Your task to perform on an android device: toggle sleep mode Image 0: 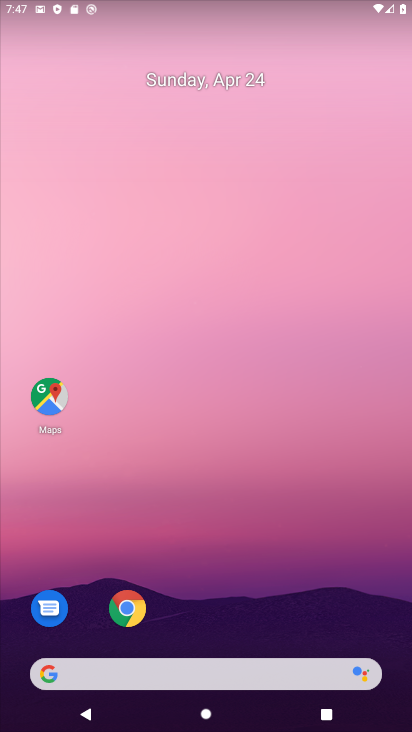
Step 0: drag from (210, 572) to (305, 175)
Your task to perform on an android device: toggle sleep mode Image 1: 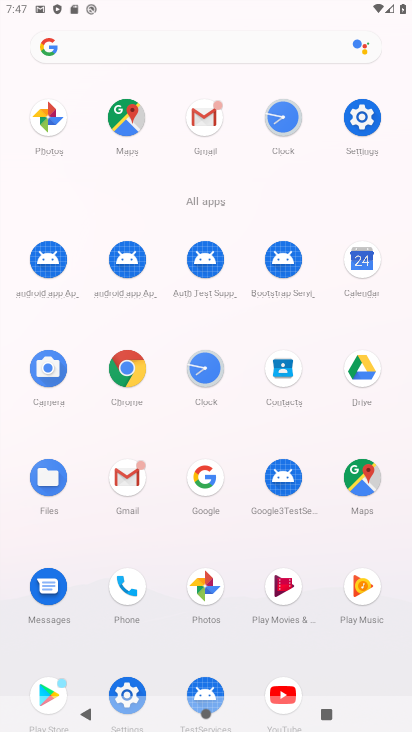
Step 1: click (373, 120)
Your task to perform on an android device: toggle sleep mode Image 2: 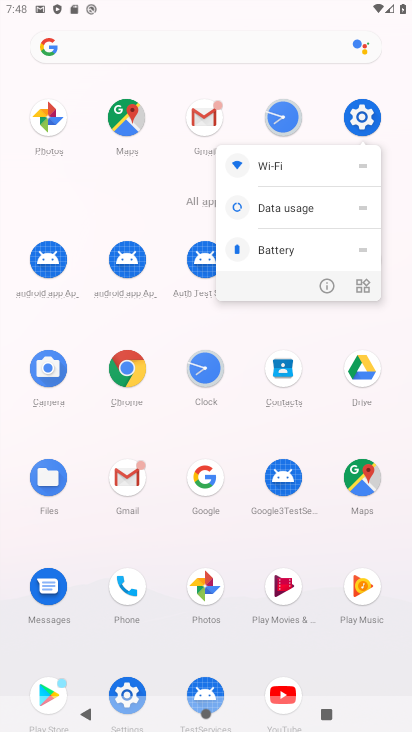
Step 2: click (361, 122)
Your task to perform on an android device: toggle sleep mode Image 3: 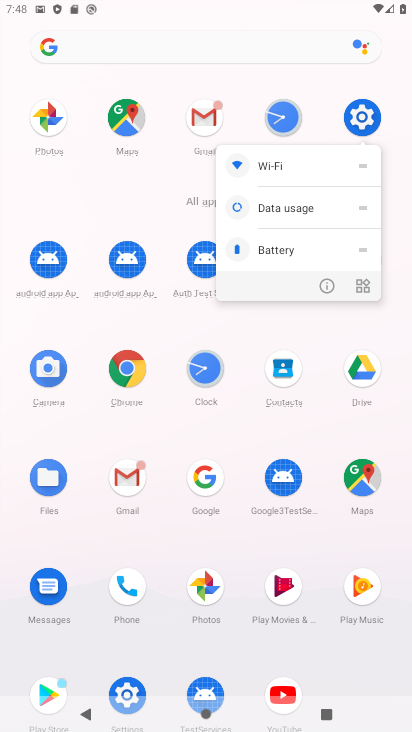
Step 3: click (358, 113)
Your task to perform on an android device: toggle sleep mode Image 4: 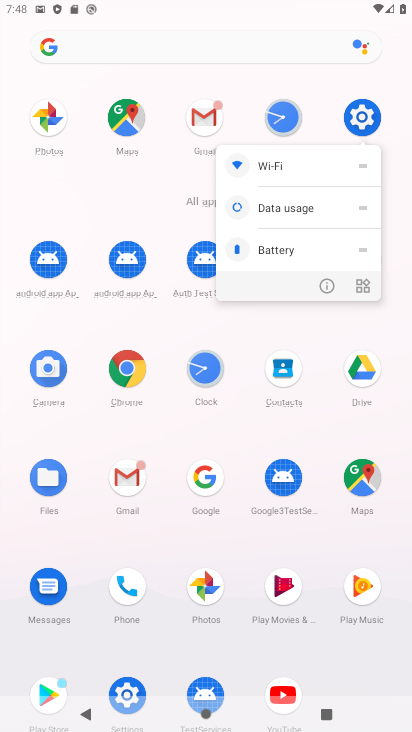
Step 4: click (385, 106)
Your task to perform on an android device: toggle sleep mode Image 5: 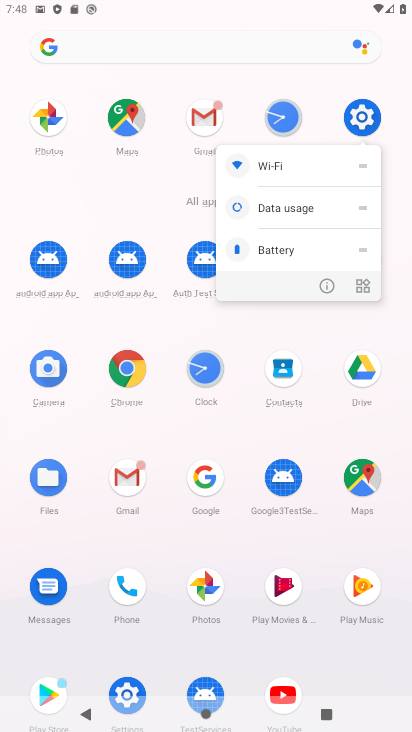
Step 5: click (372, 119)
Your task to perform on an android device: toggle sleep mode Image 6: 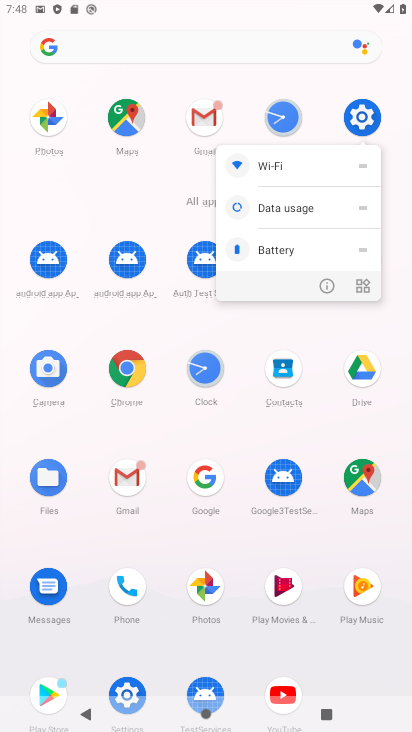
Step 6: click (367, 116)
Your task to perform on an android device: toggle sleep mode Image 7: 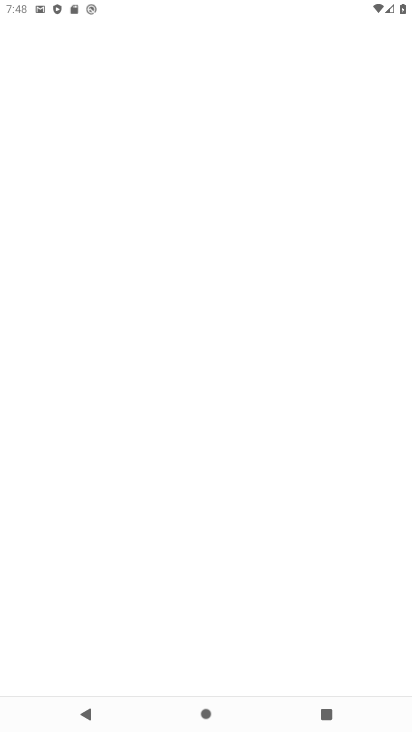
Step 7: click (366, 120)
Your task to perform on an android device: toggle sleep mode Image 8: 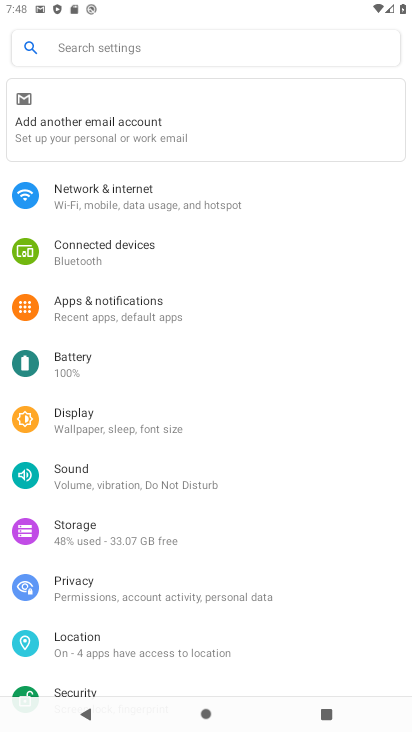
Step 8: click (155, 422)
Your task to perform on an android device: toggle sleep mode Image 9: 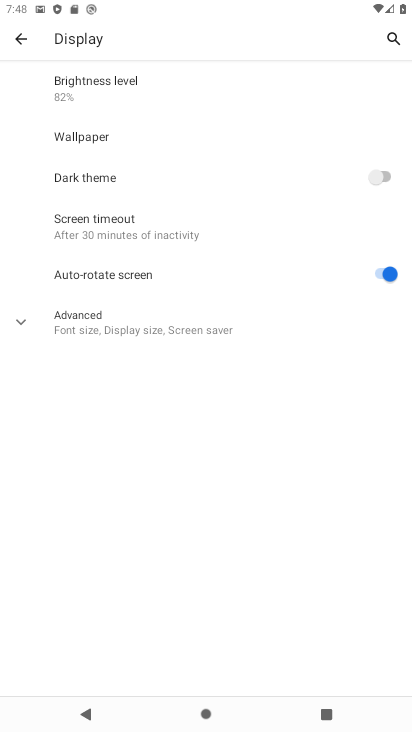
Step 9: click (161, 320)
Your task to perform on an android device: toggle sleep mode Image 10: 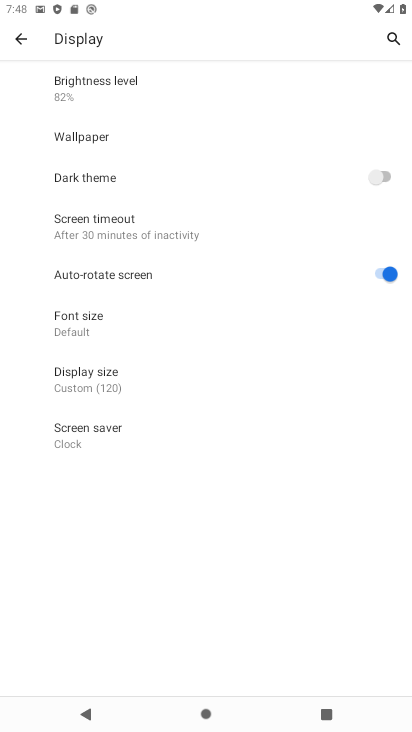
Step 10: task complete